Your task to perform on an android device: turn on the 24-hour format for clock Image 0: 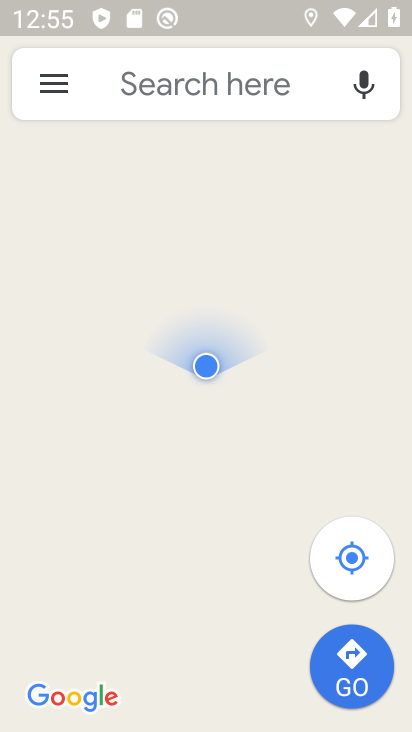
Step 0: press home button
Your task to perform on an android device: turn on the 24-hour format for clock Image 1: 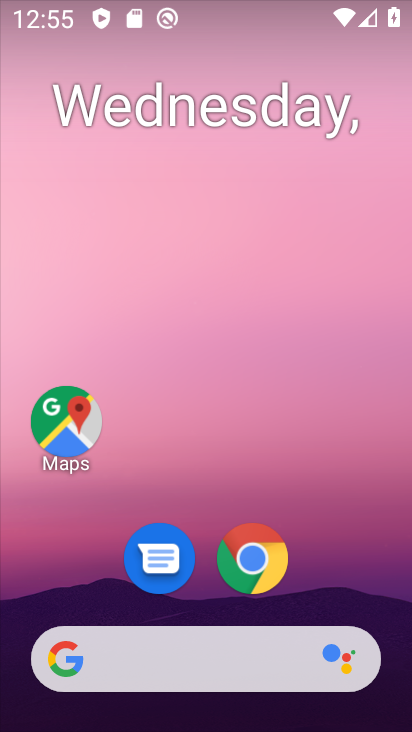
Step 1: drag from (106, 410) to (233, 73)
Your task to perform on an android device: turn on the 24-hour format for clock Image 2: 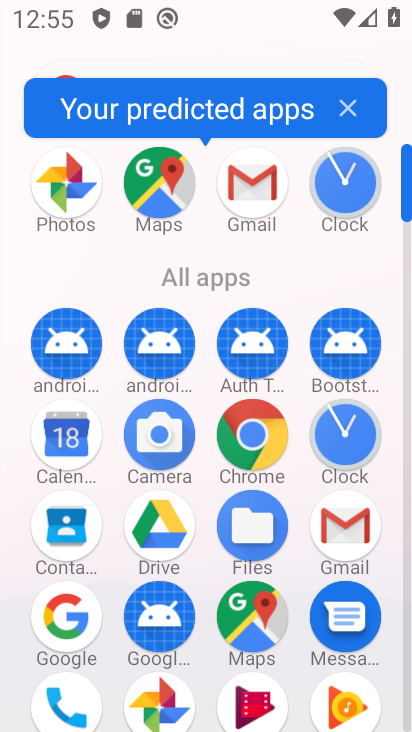
Step 2: click (344, 440)
Your task to perform on an android device: turn on the 24-hour format for clock Image 3: 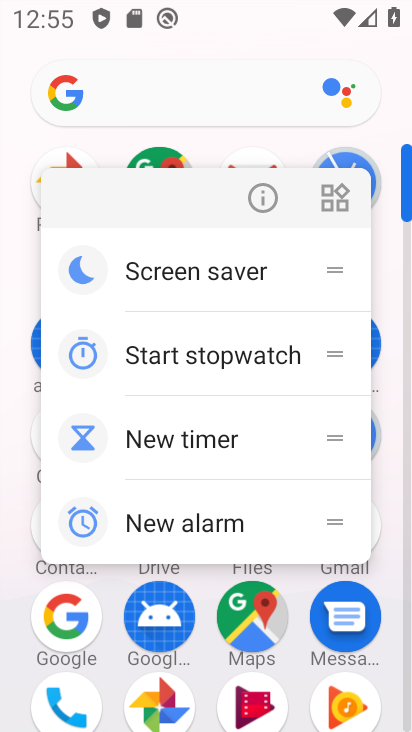
Step 3: press back button
Your task to perform on an android device: turn on the 24-hour format for clock Image 4: 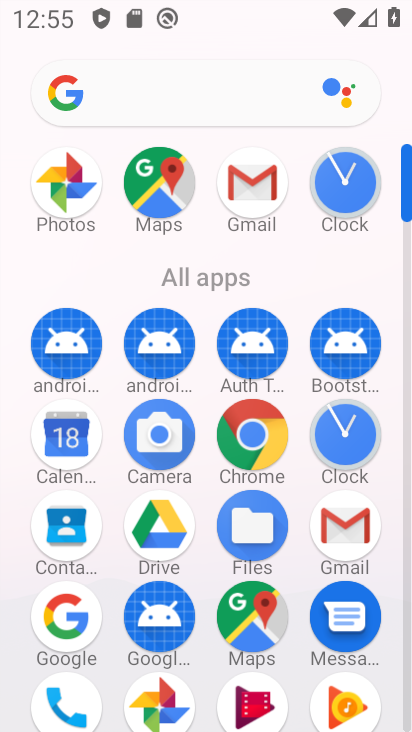
Step 4: click (378, 436)
Your task to perform on an android device: turn on the 24-hour format for clock Image 5: 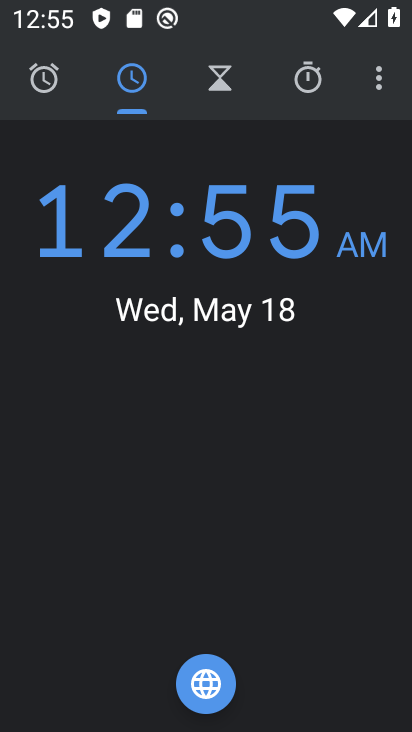
Step 5: click (372, 70)
Your task to perform on an android device: turn on the 24-hour format for clock Image 6: 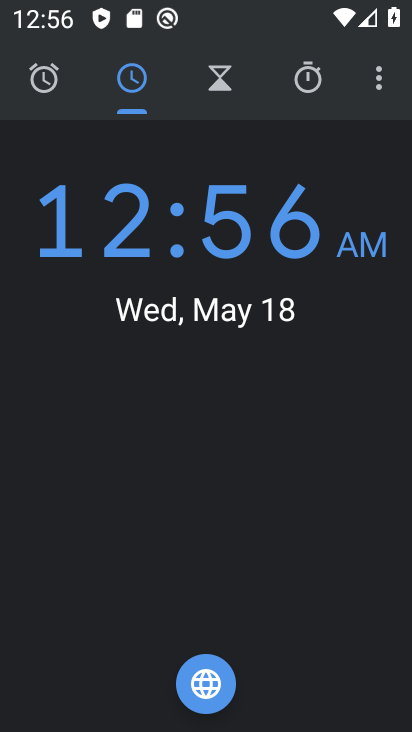
Step 6: click (376, 73)
Your task to perform on an android device: turn on the 24-hour format for clock Image 7: 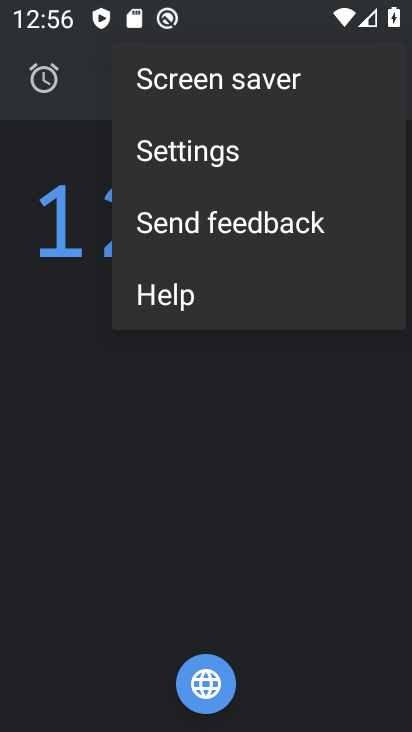
Step 7: click (274, 152)
Your task to perform on an android device: turn on the 24-hour format for clock Image 8: 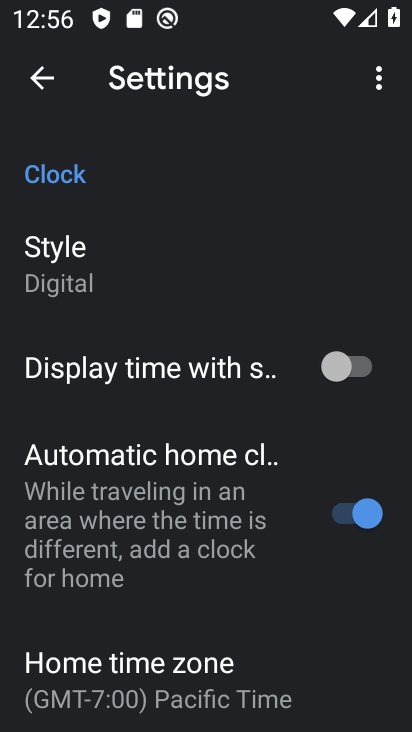
Step 8: drag from (153, 583) to (221, 161)
Your task to perform on an android device: turn on the 24-hour format for clock Image 9: 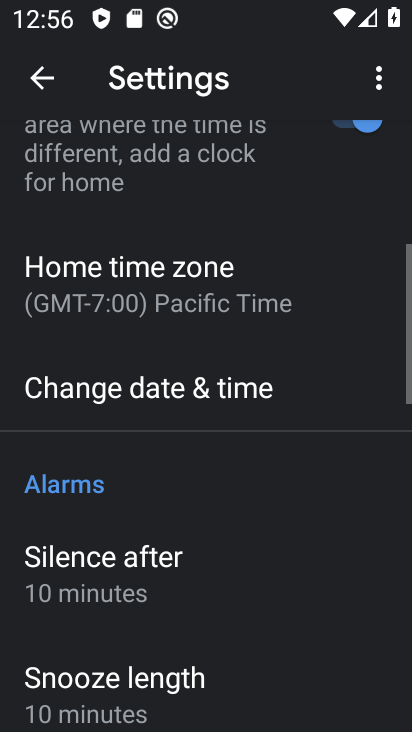
Step 9: click (218, 401)
Your task to perform on an android device: turn on the 24-hour format for clock Image 10: 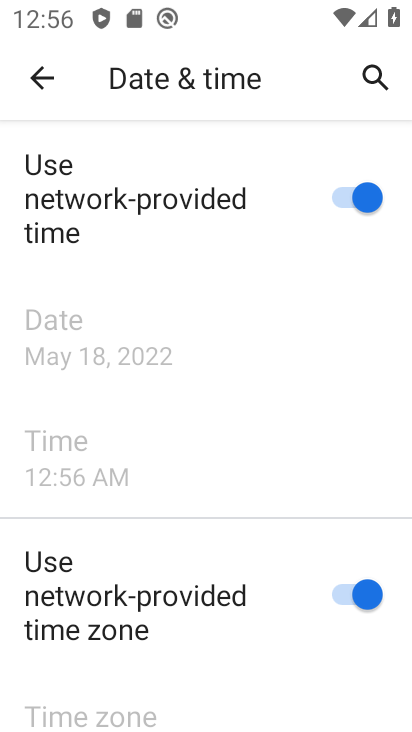
Step 10: drag from (147, 641) to (273, 214)
Your task to perform on an android device: turn on the 24-hour format for clock Image 11: 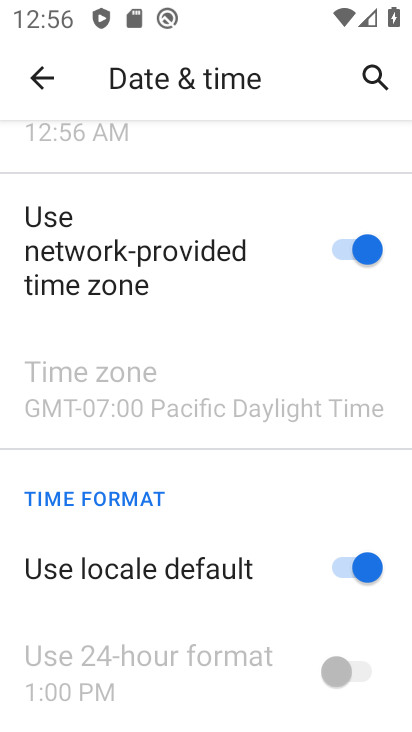
Step 11: click (350, 570)
Your task to perform on an android device: turn on the 24-hour format for clock Image 12: 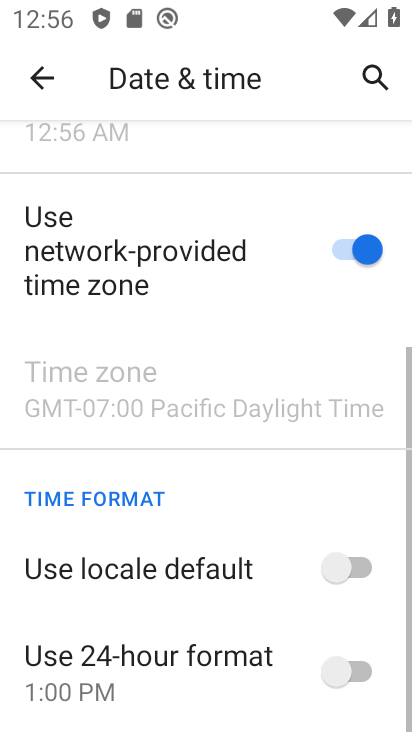
Step 12: click (376, 668)
Your task to perform on an android device: turn on the 24-hour format for clock Image 13: 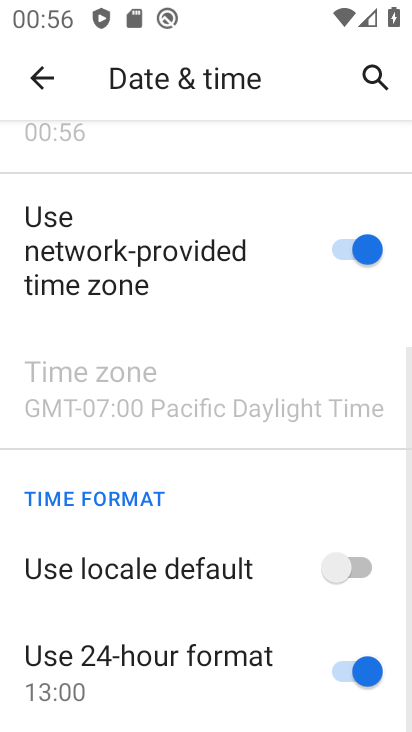
Step 13: task complete